Your task to perform on an android device: Open Google Maps and go to "Timeline" Image 0: 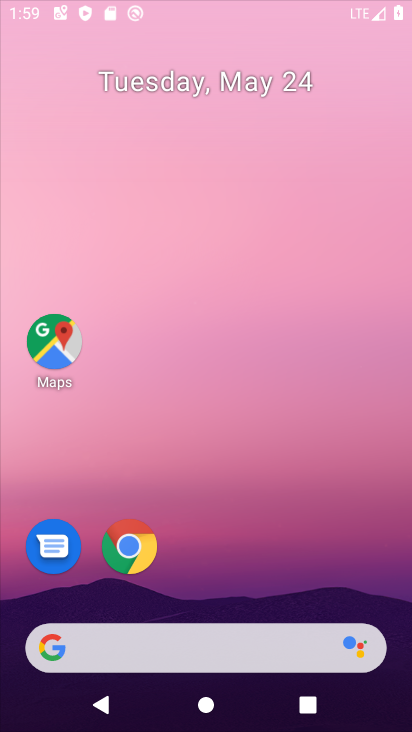
Step 0: drag from (239, 412) to (275, 164)
Your task to perform on an android device: Open Google Maps and go to "Timeline" Image 1: 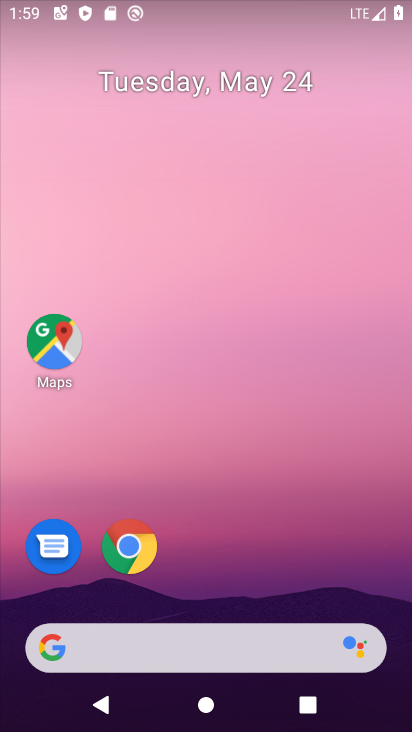
Step 1: drag from (184, 569) to (262, 55)
Your task to perform on an android device: Open Google Maps and go to "Timeline" Image 2: 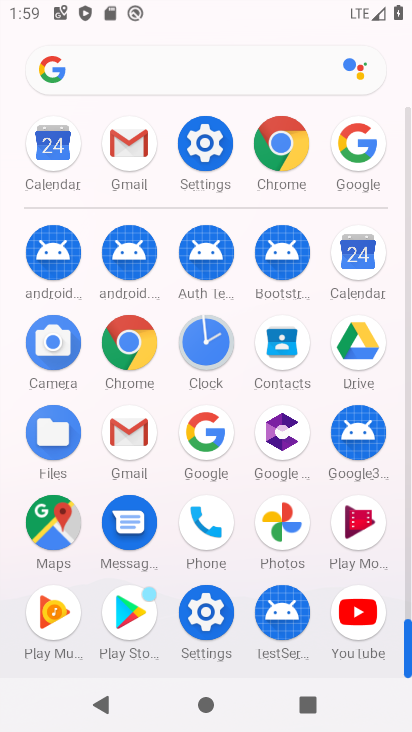
Step 2: click (42, 525)
Your task to perform on an android device: Open Google Maps and go to "Timeline" Image 3: 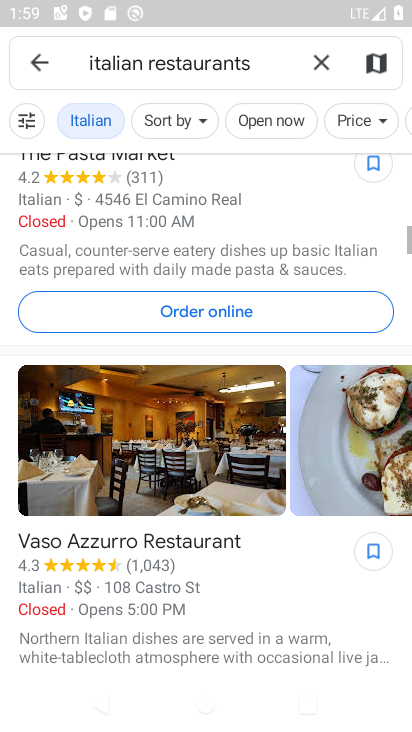
Step 3: click (26, 68)
Your task to perform on an android device: Open Google Maps and go to "Timeline" Image 4: 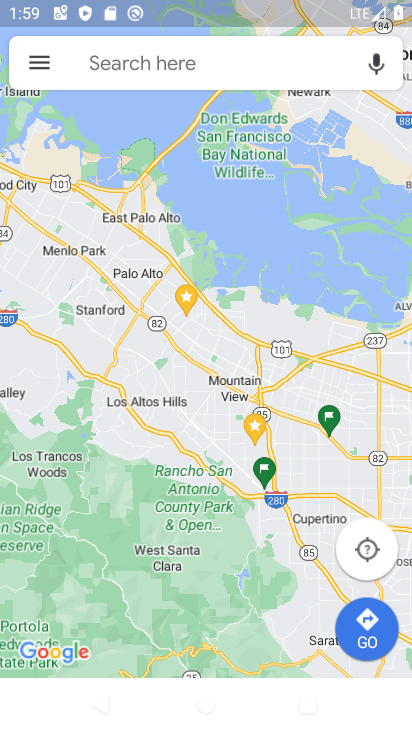
Step 4: click (40, 66)
Your task to perform on an android device: Open Google Maps and go to "Timeline" Image 5: 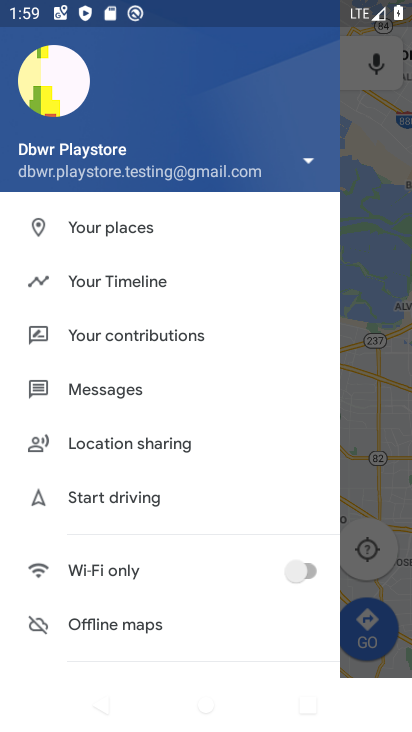
Step 5: click (126, 289)
Your task to perform on an android device: Open Google Maps and go to "Timeline" Image 6: 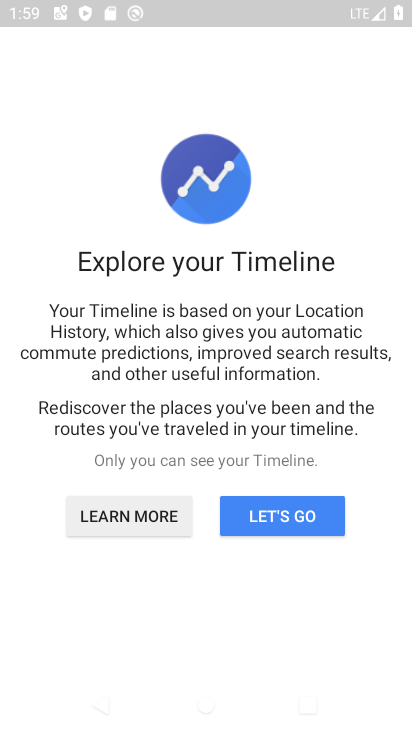
Step 6: click (274, 522)
Your task to perform on an android device: Open Google Maps and go to "Timeline" Image 7: 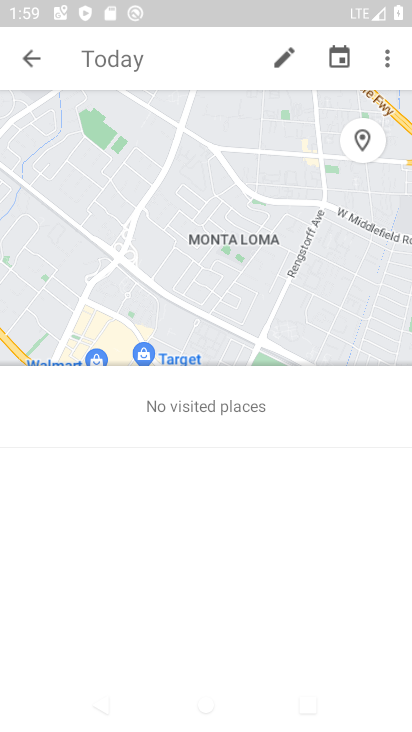
Step 7: task complete